Your task to perform on an android device: Is it going to rain today? Image 0: 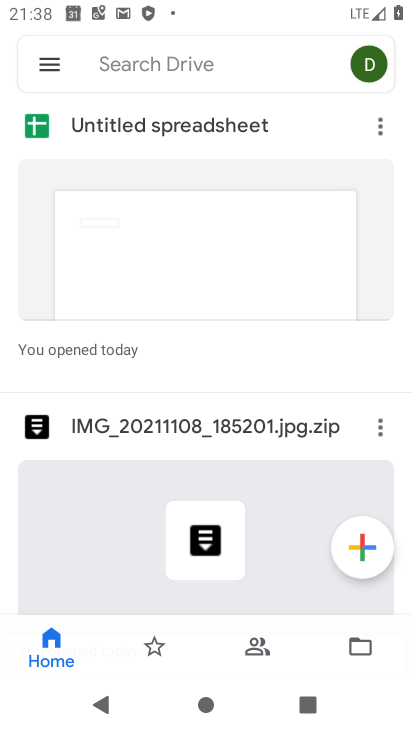
Step 0: press home button
Your task to perform on an android device: Is it going to rain today? Image 1: 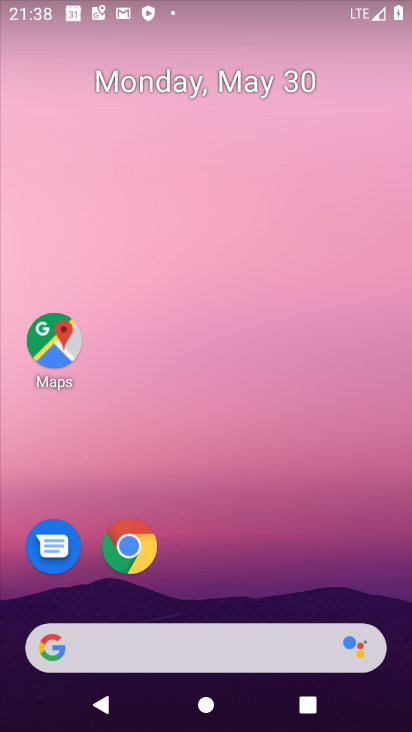
Step 1: drag from (362, 549) to (323, 125)
Your task to perform on an android device: Is it going to rain today? Image 2: 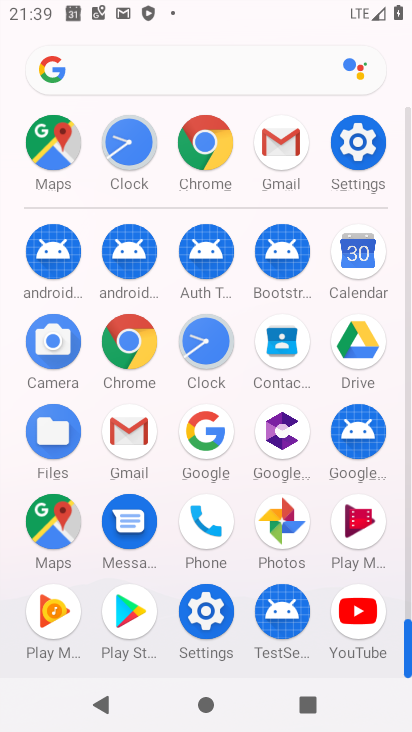
Step 2: click (146, 346)
Your task to perform on an android device: Is it going to rain today? Image 3: 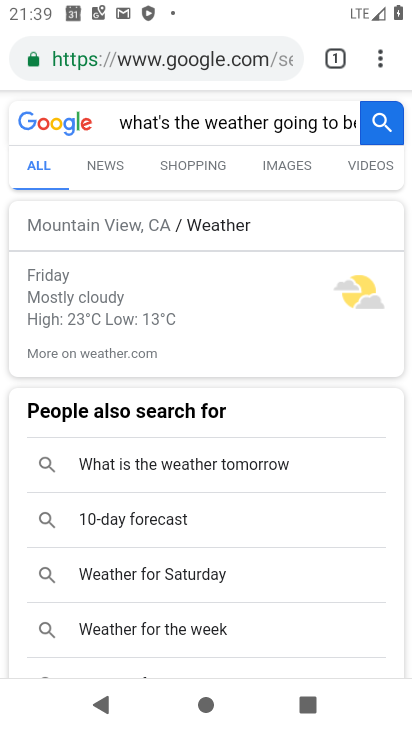
Step 3: click (238, 71)
Your task to perform on an android device: Is it going to rain today? Image 4: 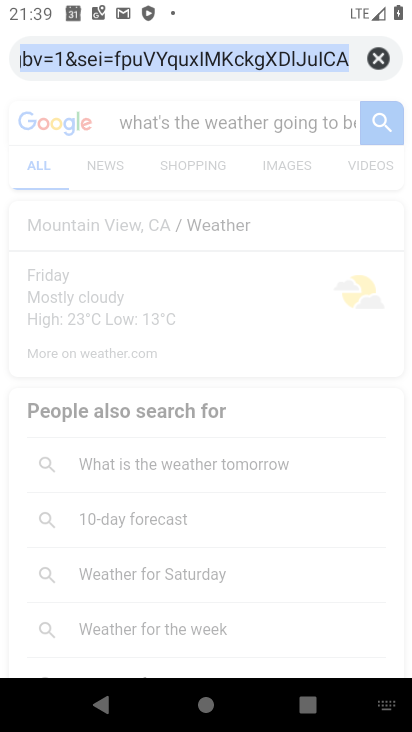
Step 4: click (384, 61)
Your task to perform on an android device: Is it going to rain today? Image 5: 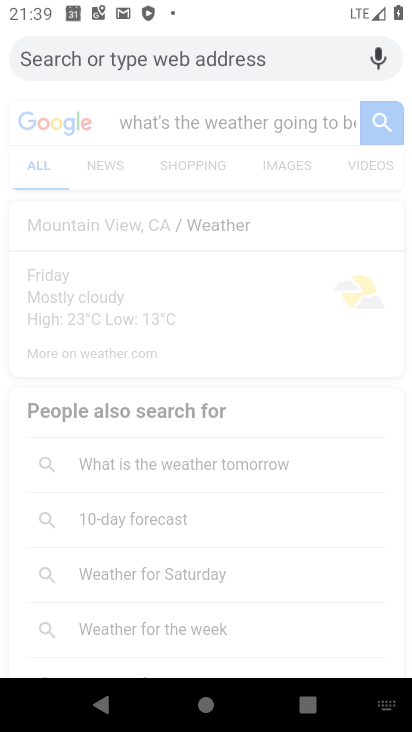
Step 5: type "is it going to rain today"
Your task to perform on an android device: Is it going to rain today? Image 6: 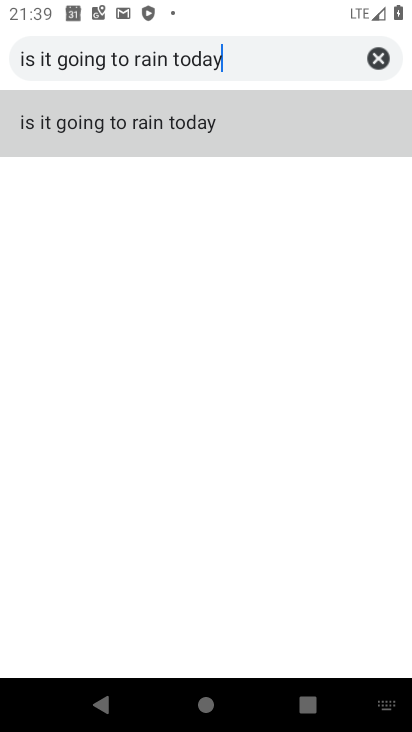
Step 6: click (96, 124)
Your task to perform on an android device: Is it going to rain today? Image 7: 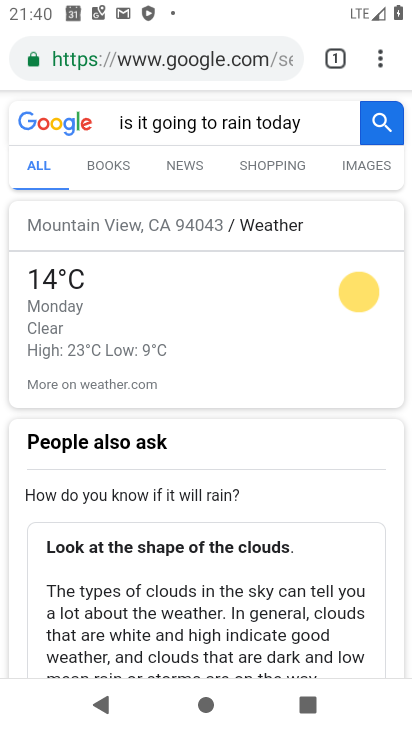
Step 7: task complete